Your task to perform on an android device: Open calendar and show me the fourth week of next month Image 0: 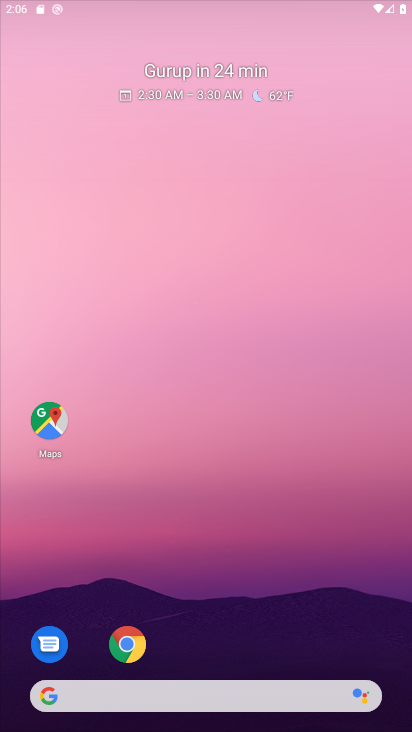
Step 0: drag from (239, 538) to (239, 179)
Your task to perform on an android device: Open calendar and show me the fourth week of next month Image 1: 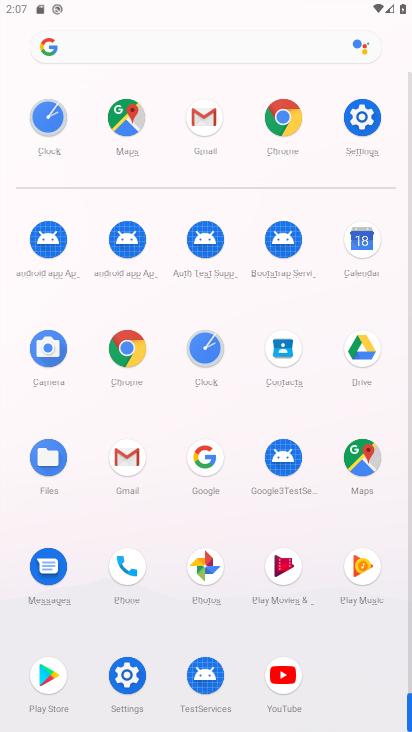
Step 1: click (360, 241)
Your task to perform on an android device: Open calendar and show me the fourth week of next month Image 2: 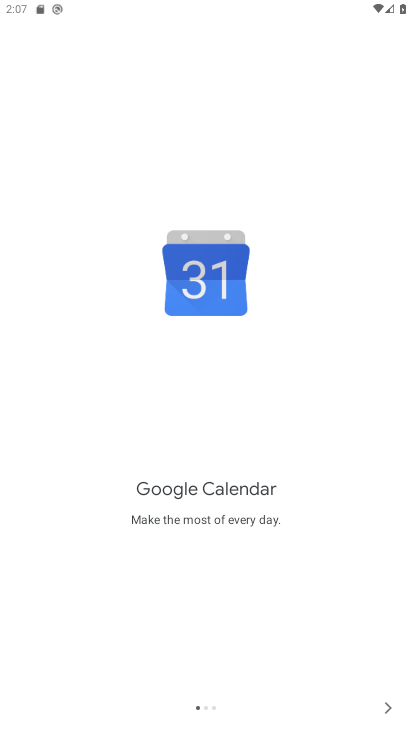
Step 2: click (395, 709)
Your task to perform on an android device: Open calendar and show me the fourth week of next month Image 3: 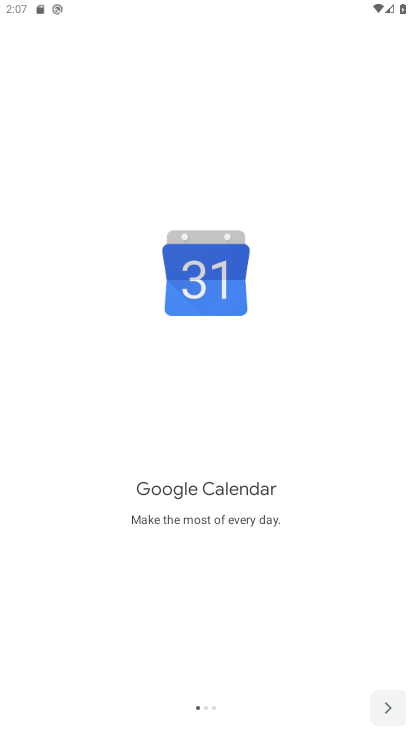
Step 3: click (395, 709)
Your task to perform on an android device: Open calendar and show me the fourth week of next month Image 4: 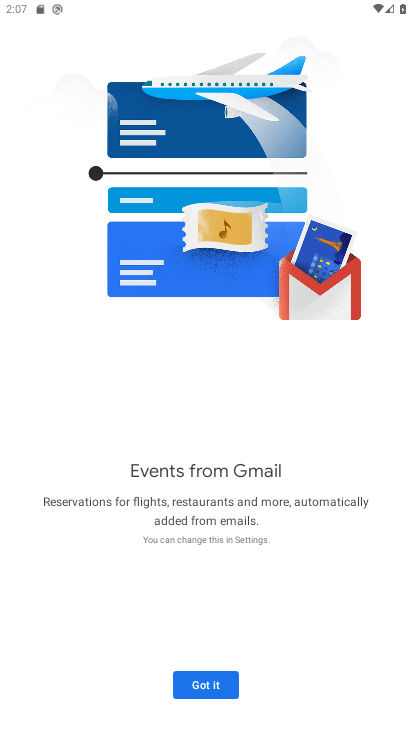
Step 4: click (214, 691)
Your task to perform on an android device: Open calendar and show me the fourth week of next month Image 5: 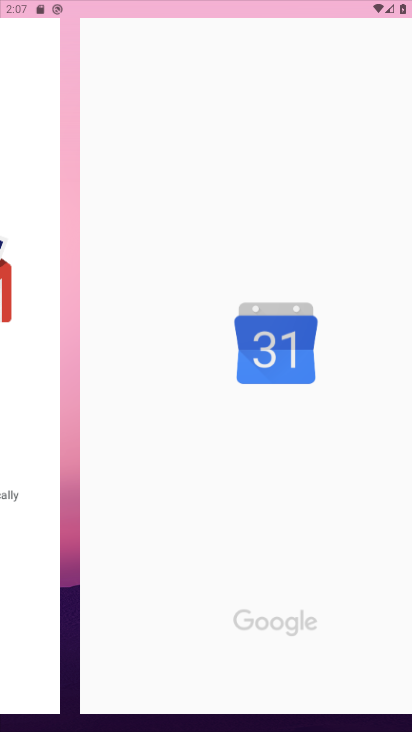
Step 5: click (210, 686)
Your task to perform on an android device: Open calendar and show me the fourth week of next month Image 6: 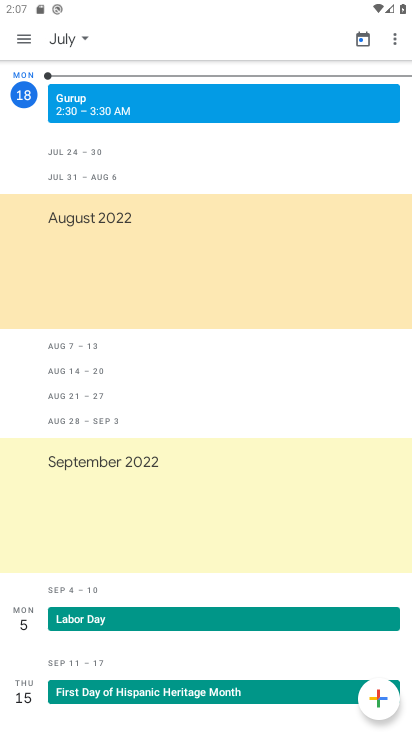
Step 6: click (86, 43)
Your task to perform on an android device: Open calendar and show me the fourth week of next month Image 7: 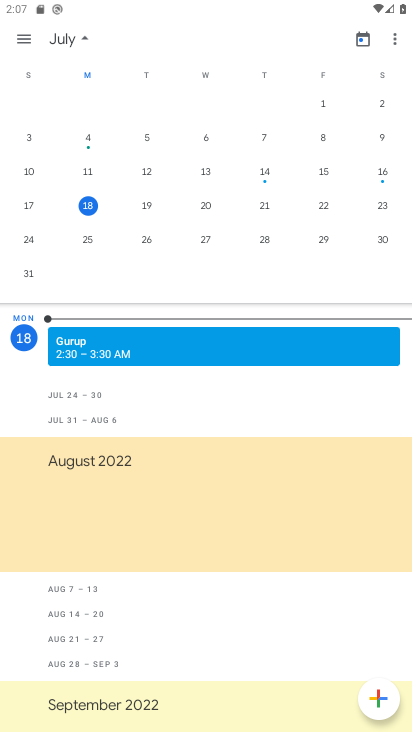
Step 7: drag from (308, 198) to (8, 254)
Your task to perform on an android device: Open calendar and show me the fourth week of next month Image 8: 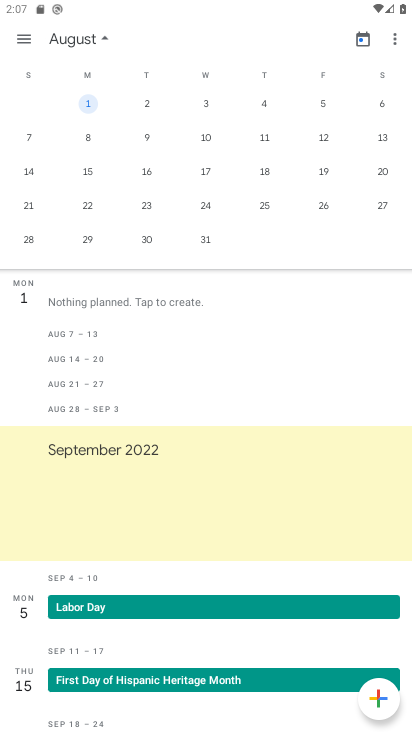
Step 8: drag from (315, 225) to (8, 126)
Your task to perform on an android device: Open calendar and show me the fourth week of next month Image 9: 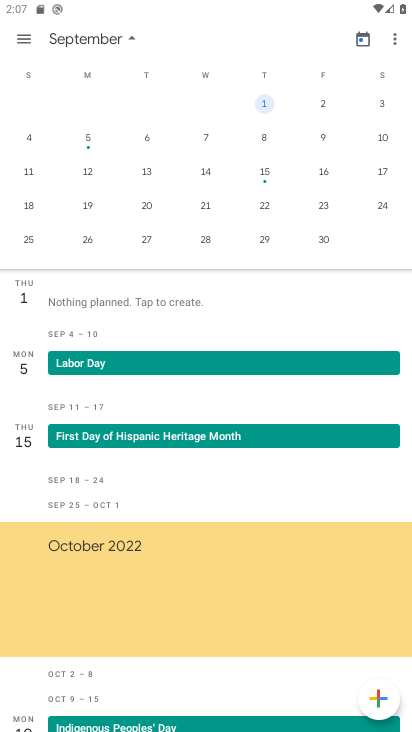
Step 9: drag from (104, 178) to (345, 216)
Your task to perform on an android device: Open calendar and show me the fourth week of next month Image 10: 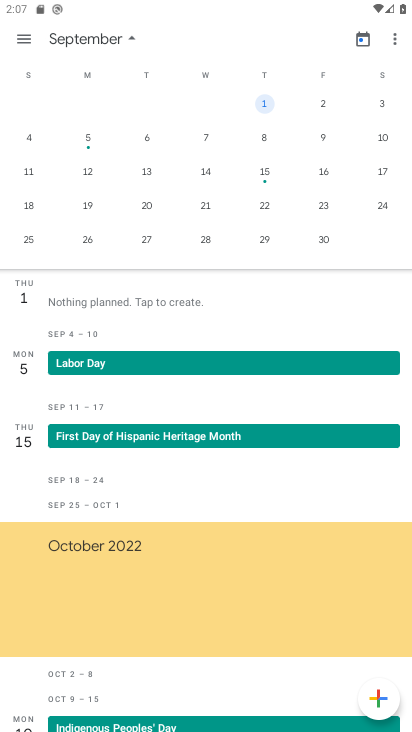
Step 10: drag from (36, 212) to (324, 244)
Your task to perform on an android device: Open calendar and show me the fourth week of next month Image 11: 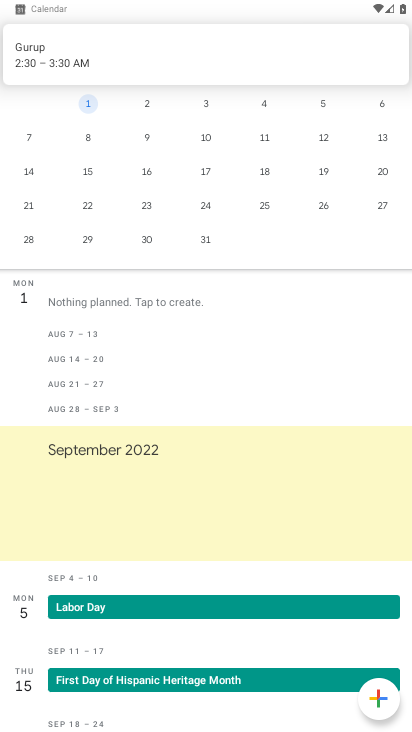
Step 11: click (143, 202)
Your task to perform on an android device: Open calendar and show me the fourth week of next month Image 12: 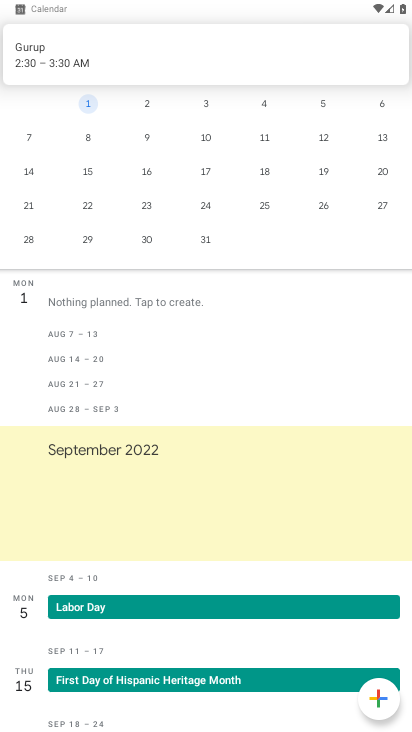
Step 12: click (145, 201)
Your task to perform on an android device: Open calendar and show me the fourth week of next month Image 13: 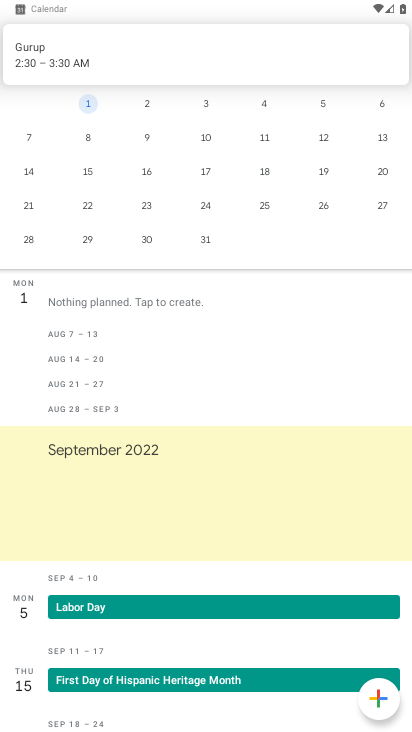
Step 13: click (146, 200)
Your task to perform on an android device: Open calendar and show me the fourth week of next month Image 14: 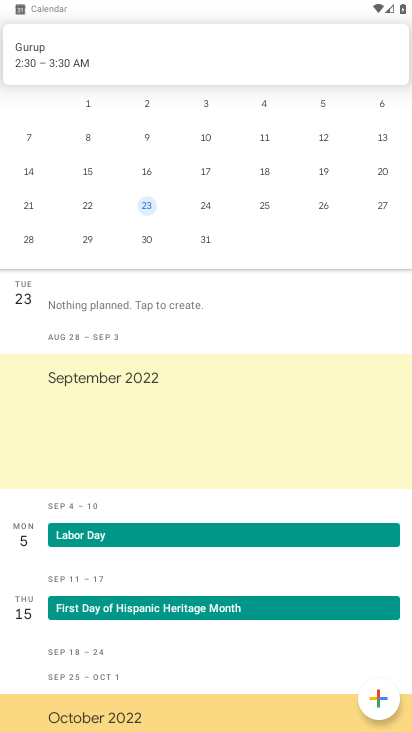
Step 14: click (137, 208)
Your task to perform on an android device: Open calendar and show me the fourth week of next month Image 15: 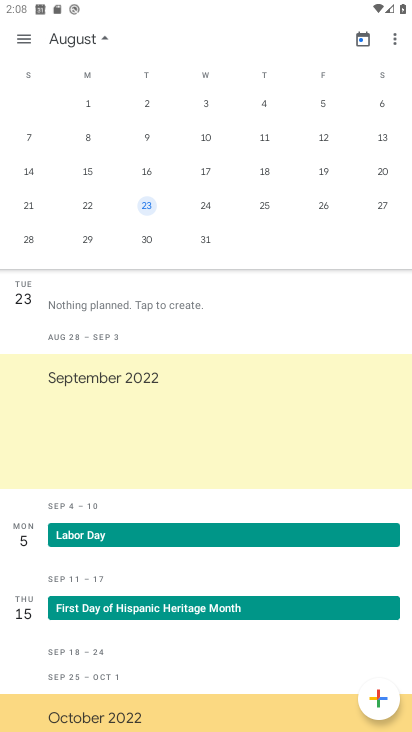
Step 15: task complete